Your task to perform on an android device: What's the weather like in Beijing? Image 0: 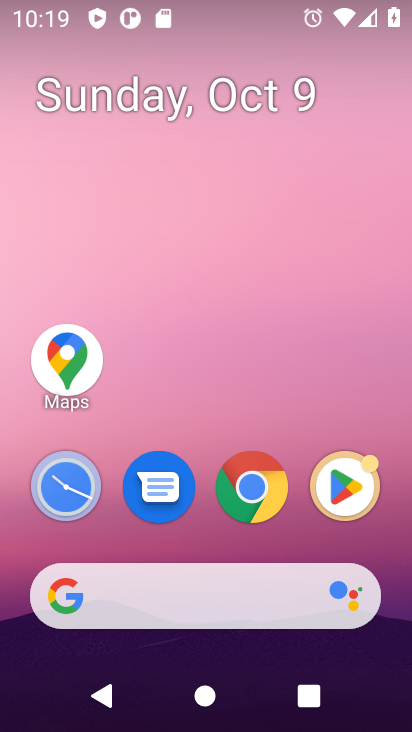
Step 0: drag from (211, 551) to (4, 440)
Your task to perform on an android device: What's the weather like in Beijing? Image 1: 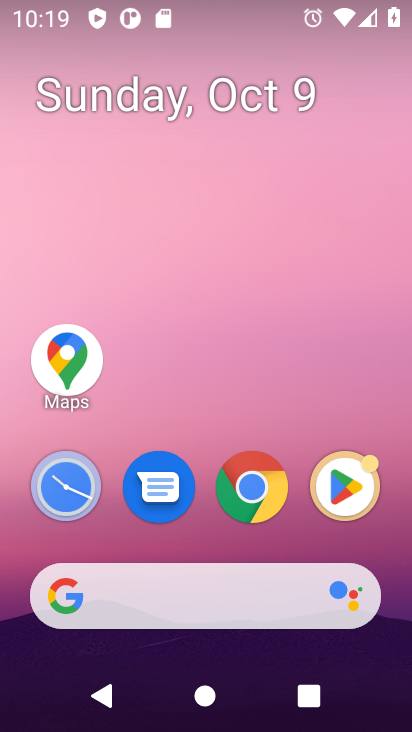
Step 1: click (252, 488)
Your task to perform on an android device: What's the weather like in Beijing? Image 2: 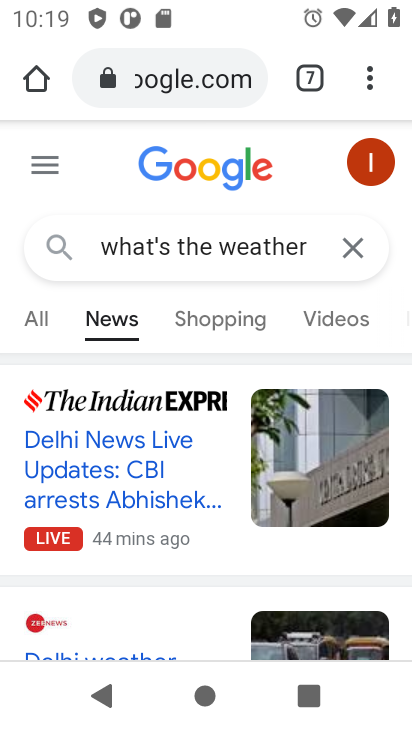
Step 2: click (298, 242)
Your task to perform on an android device: What's the weather like in Beijing? Image 3: 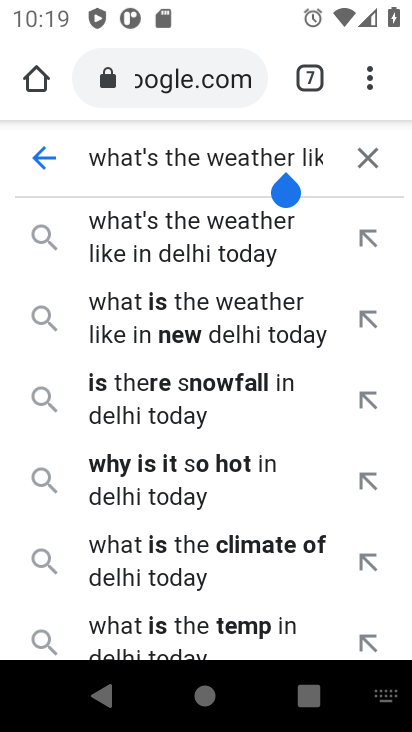
Step 3: click (371, 155)
Your task to perform on an android device: What's the weather like in Beijing? Image 4: 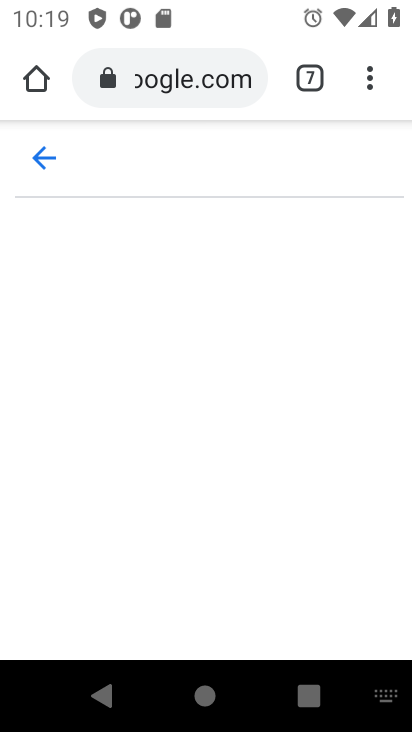
Step 4: type "What's the weather like in Beijing?"
Your task to perform on an android device: What's the weather like in Beijing? Image 5: 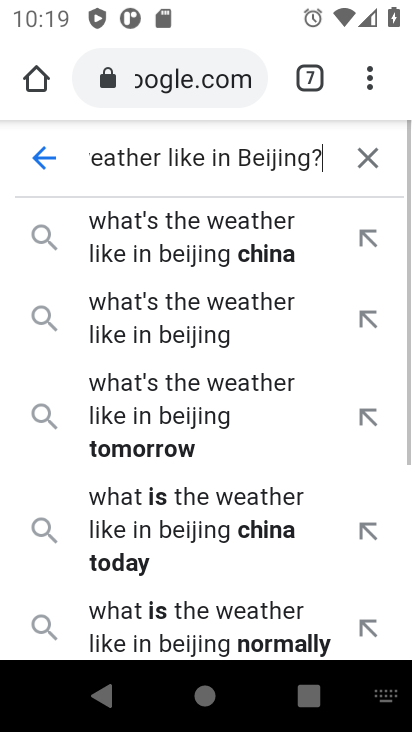
Step 5: click (185, 298)
Your task to perform on an android device: What's the weather like in Beijing? Image 6: 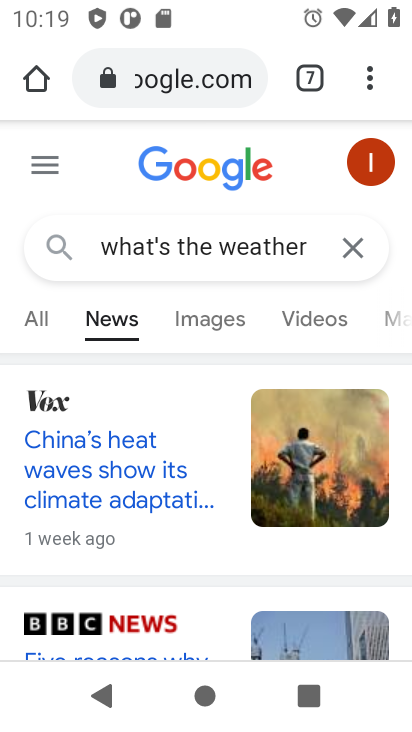
Step 6: click (44, 317)
Your task to perform on an android device: What's the weather like in Beijing? Image 7: 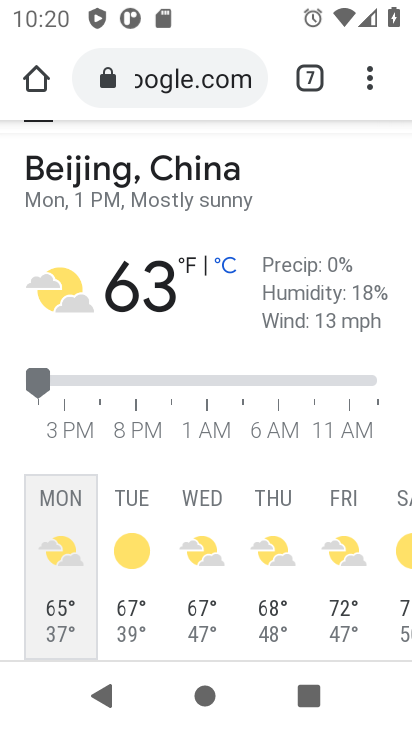
Step 7: task complete